Your task to perform on an android device: Go to Maps Image 0: 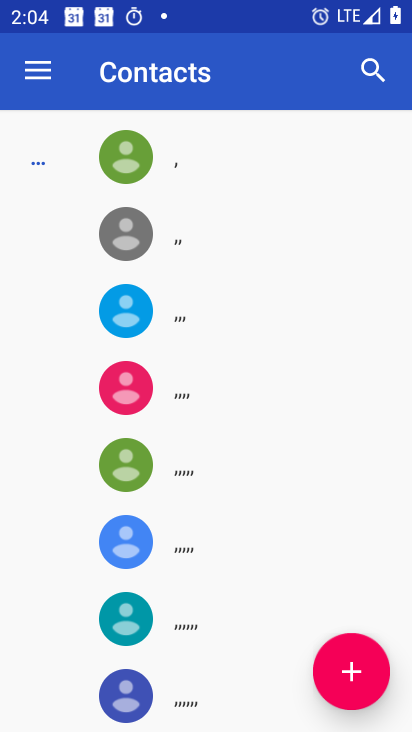
Step 0: press home button
Your task to perform on an android device: Go to Maps Image 1: 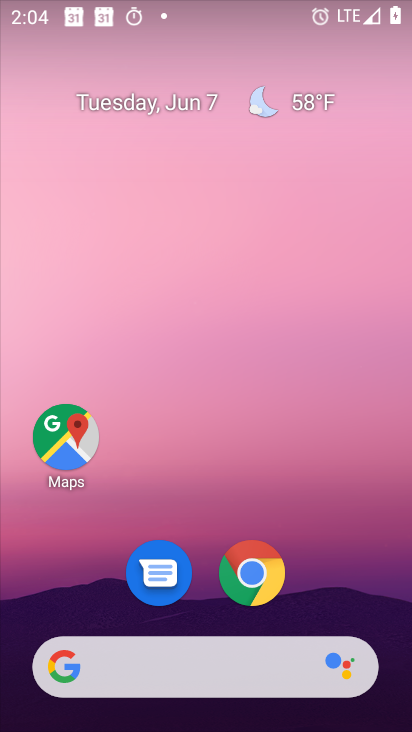
Step 1: drag from (298, 584) to (304, 125)
Your task to perform on an android device: Go to Maps Image 2: 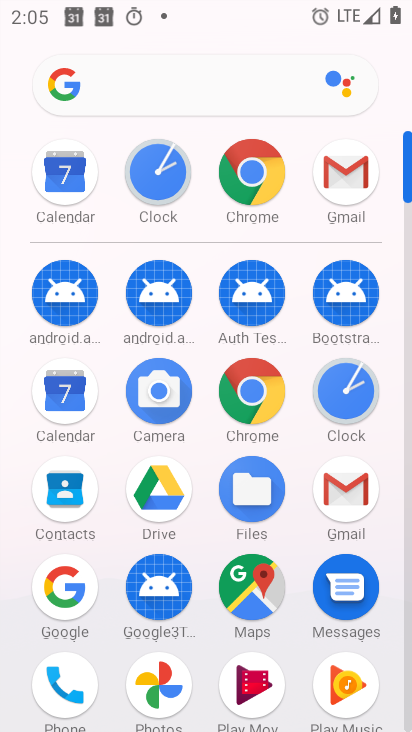
Step 2: click (262, 580)
Your task to perform on an android device: Go to Maps Image 3: 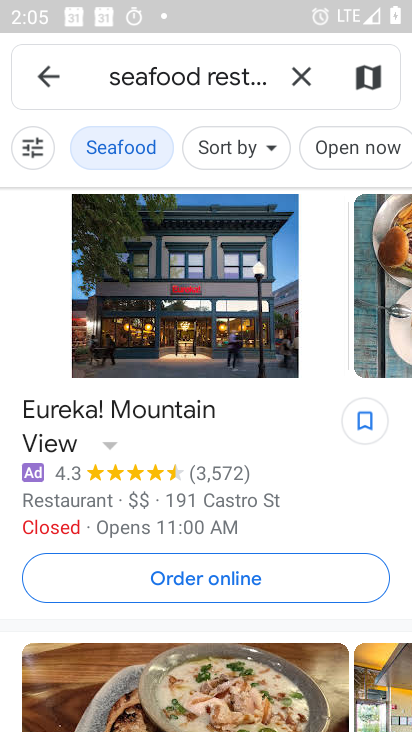
Step 3: click (50, 67)
Your task to perform on an android device: Go to Maps Image 4: 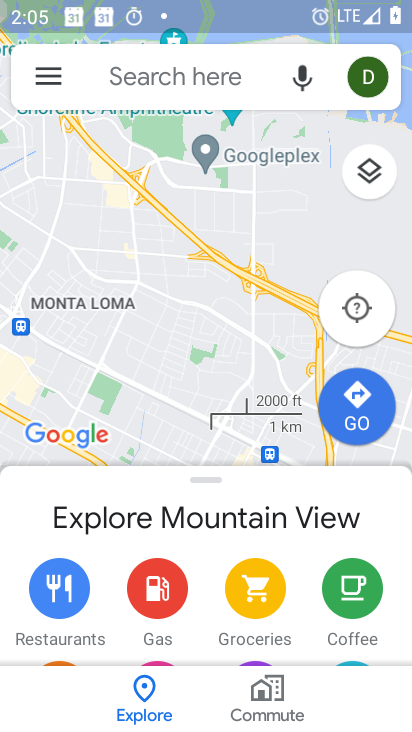
Step 4: task complete